Your task to perform on an android device: When is my next meeting? Image 0: 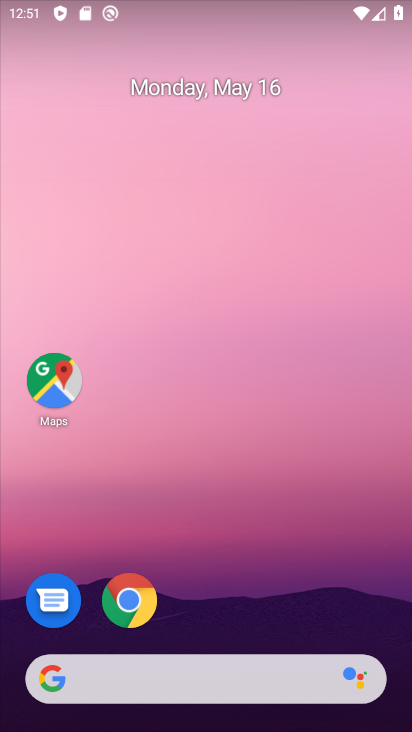
Step 0: drag from (362, 600) to (369, 156)
Your task to perform on an android device: When is my next meeting? Image 1: 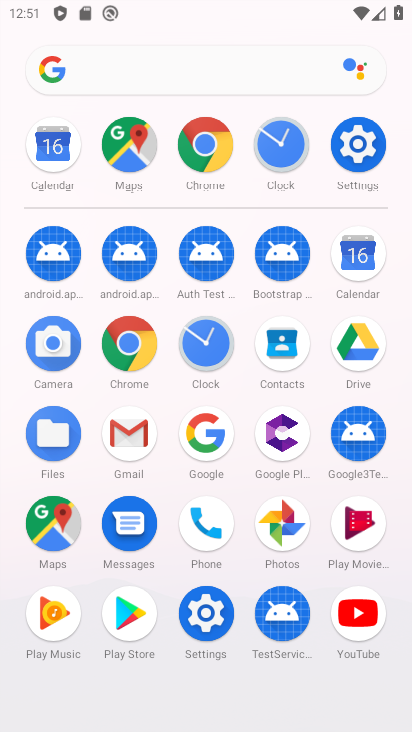
Step 1: click (360, 259)
Your task to perform on an android device: When is my next meeting? Image 2: 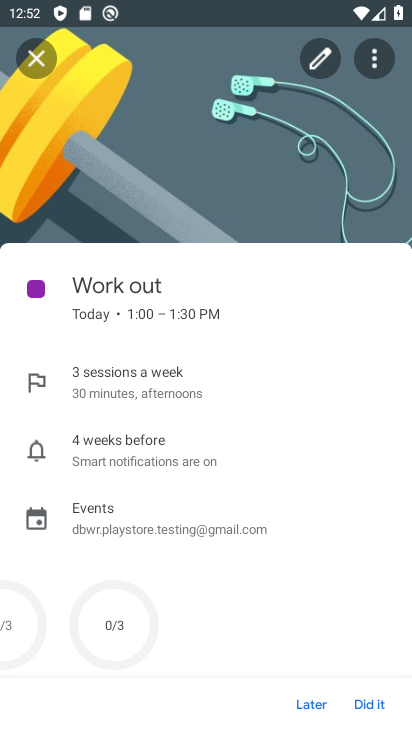
Step 2: task complete